Your task to perform on an android device: toggle sleep mode Image 0: 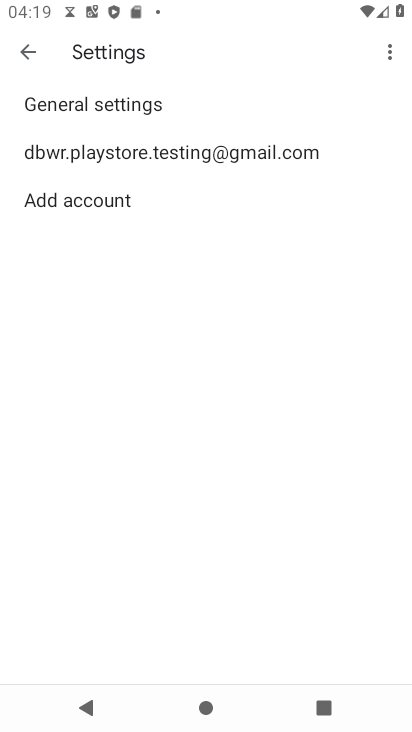
Step 0: press back button
Your task to perform on an android device: toggle sleep mode Image 1: 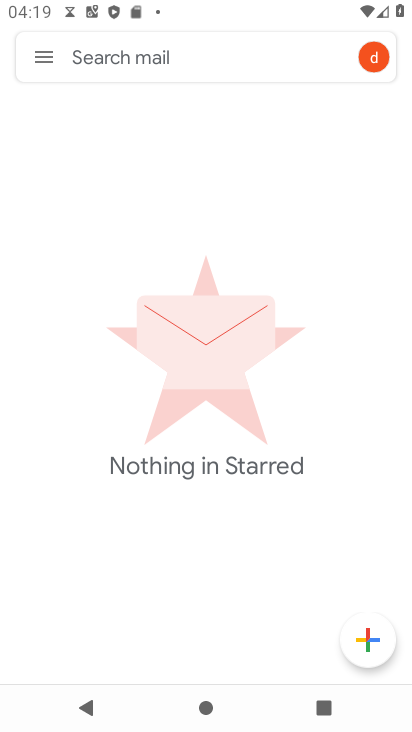
Step 1: press back button
Your task to perform on an android device: toggle sleep mode Image 2: 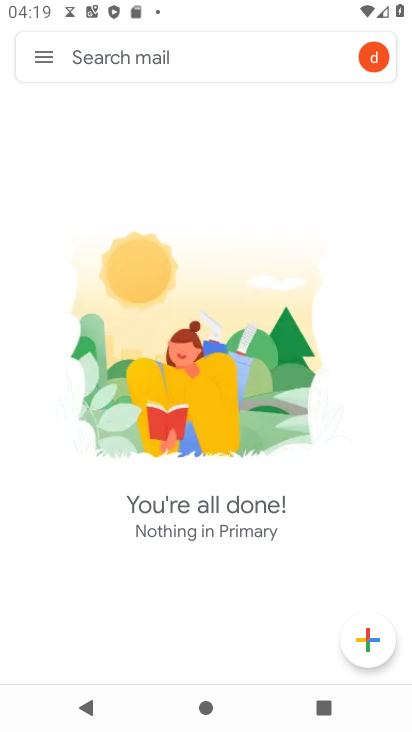
Step 2: press home button
Your task to perform on an android device: toggle sleep mode Image 3: 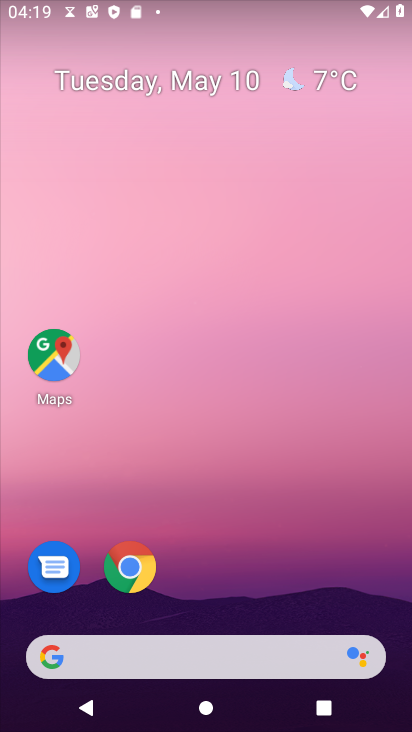
Step 3: drag from (305, 560) to (217, 152)
Your task to perform on an android device: toggle sleep mode Image 4: 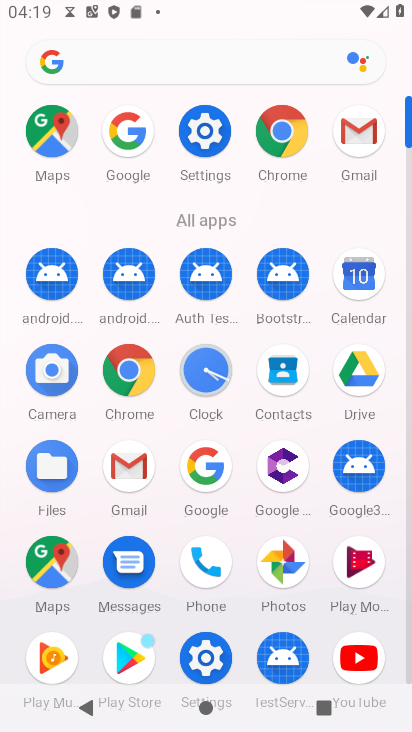
Step 4: click (196, 127)
Your task to perform on an android device: toggle sleep mode Image 5: 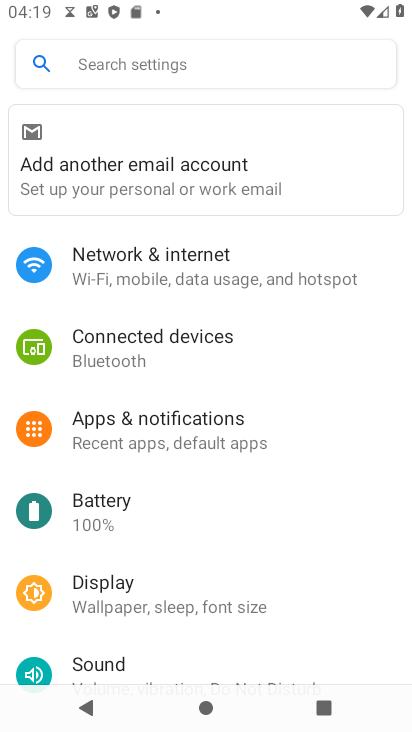
Step 5: click (115, 597)
Your task to perform on an android device: toggle sleep mode Image 6: 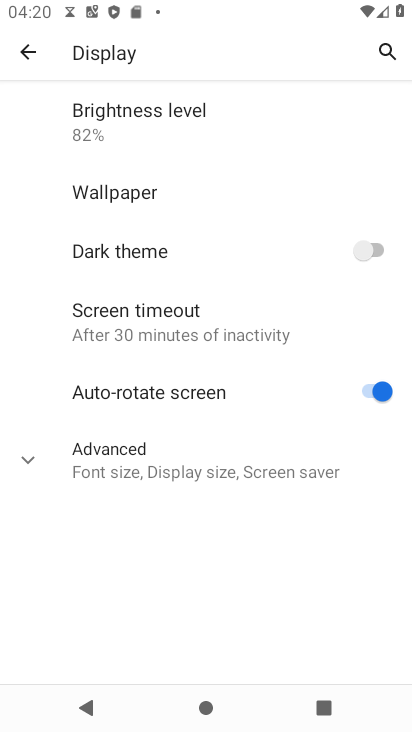
Step 6: click (69, 467)
Your task to perform on an android device: toggle sleep mode Image 7: 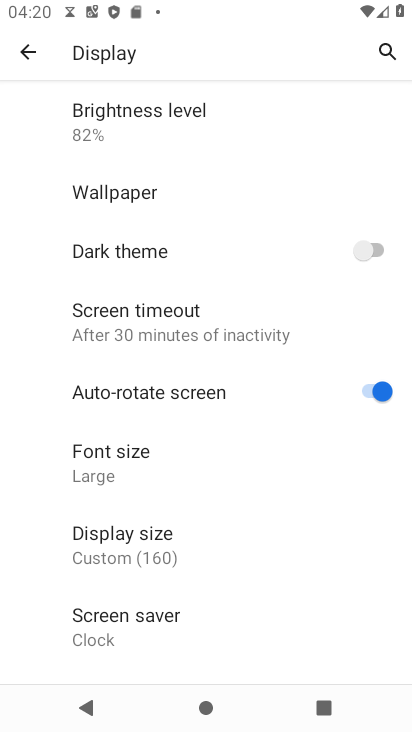
Step 7: click (24, 47)
Your task to perform on an android device: toggle sleep mode Image 8: 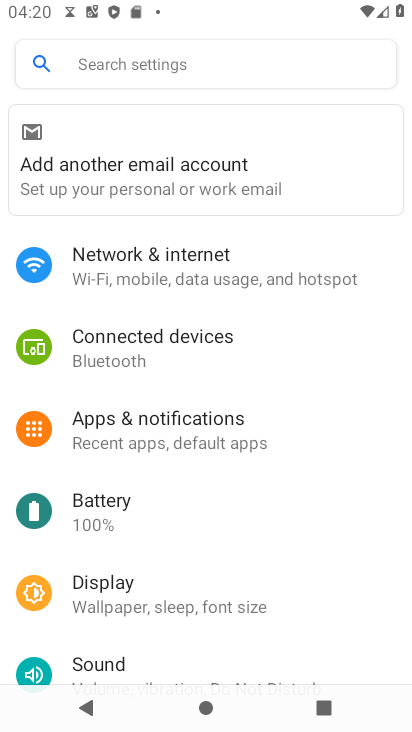
Step 8: task complete